Your task to perform on an android device: turn pop-ups on in chrome Image 0: 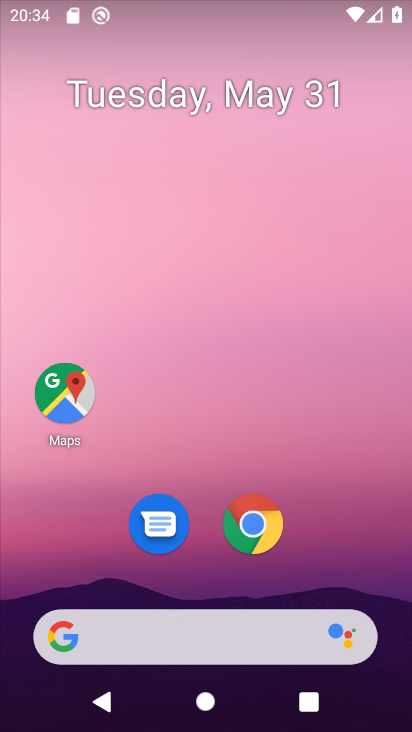
Step 0: click (263, 524)
Your task to perform on an android device: turn pop-ups on in chrome Image 1: 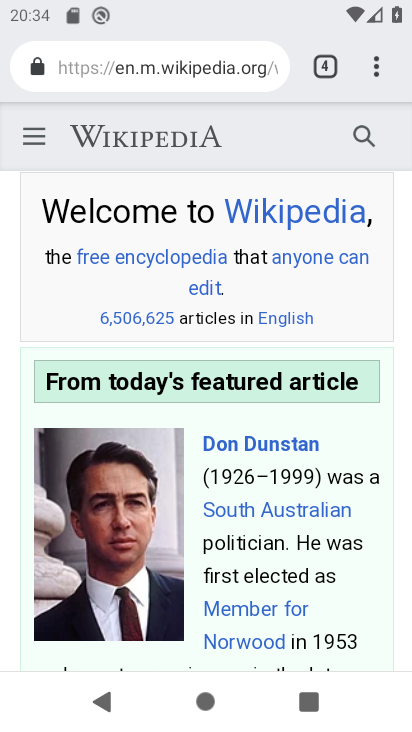
Step 1: click (377, 66)
Your task to perform on an android device: turn pop-ups on in chrome Image 2: 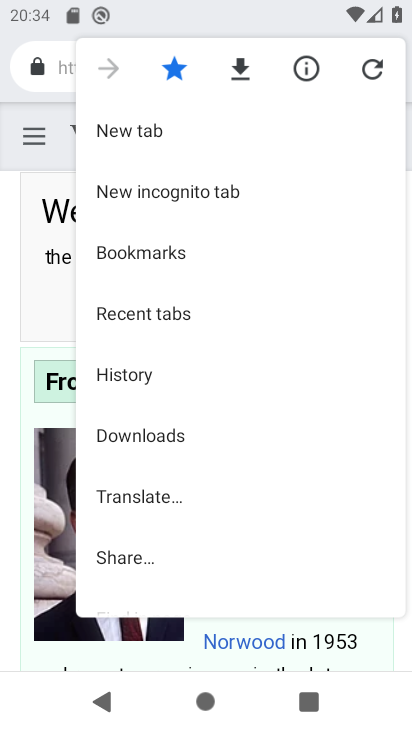
Step 2: drag from (223, 529) to (288, 207)
Your task to perform on an android device: turn pop-ups on in chrome Image 3: 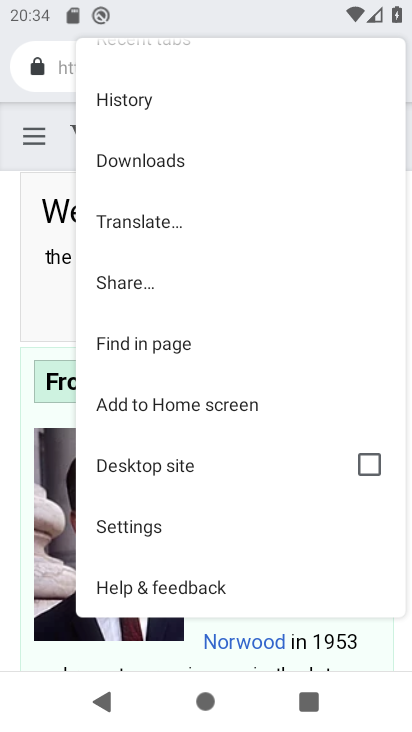
Step 3: click (178, 521)
Your task to perform on an android device: turn pop-ups on in chrome Image 4: 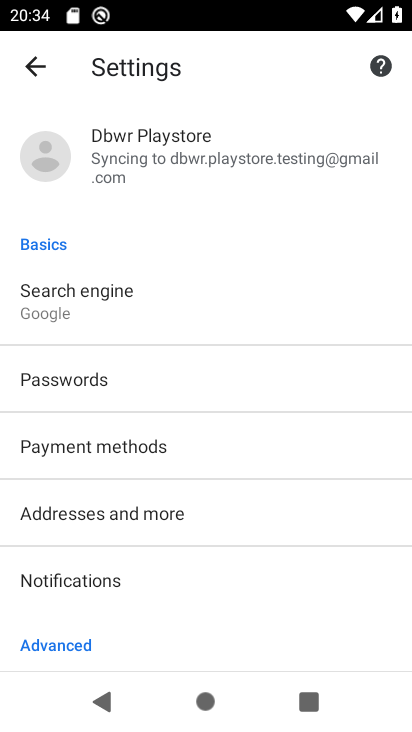
Step 4: drag from (239, 577) to (261, 278)
Your task to perform on an android device: turn pop-ups on in chrome Image 5: 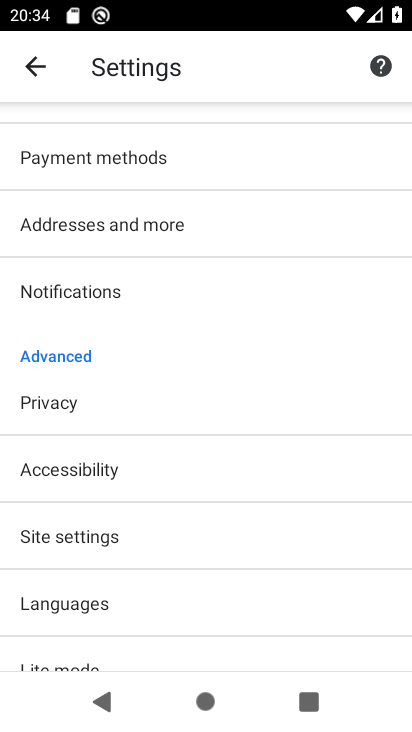
Step 5: click (182, 518)
Your task to perform on an android device: turn pop-ups on in chrome Image 6: 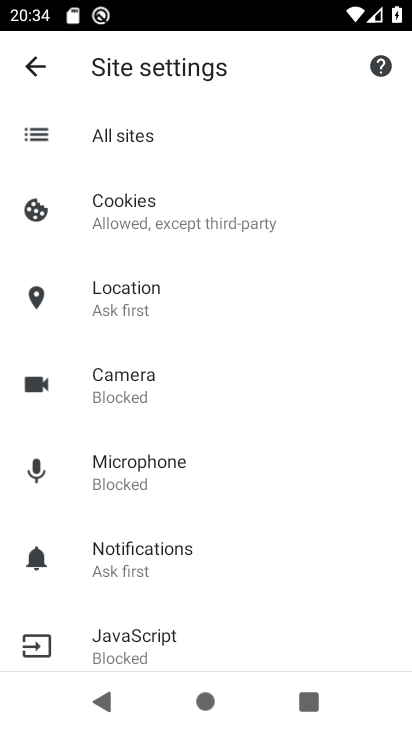
Step 6: drag from (238, 489) to (248, 263)
Your task to perform on an android device: turn pop-ups on in chrome Image 7: 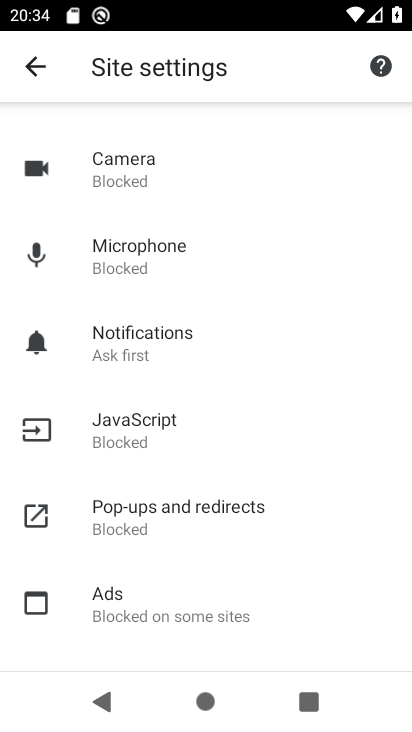
Step 7: click (188, 512)
Your task to perform on an android device: turn pop-ups on in chrome Image 8: 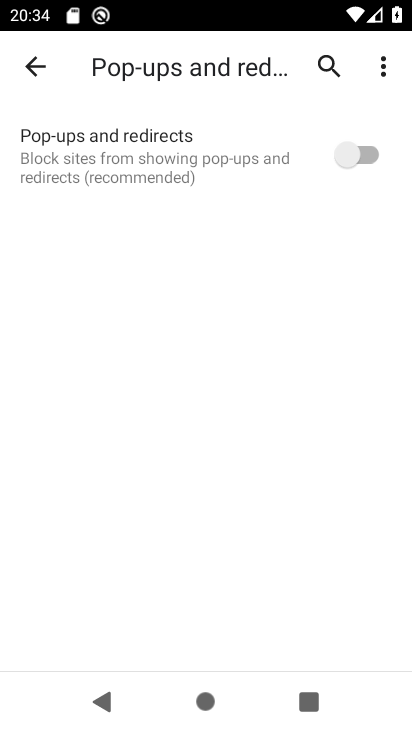
Step 8: click (349, 141)
Your task to perform on an android device: turn pop-ups on in chrome Image 9: 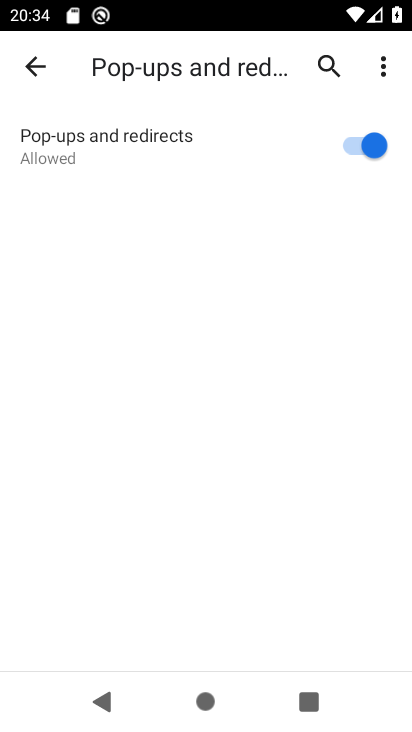
Step 9: task complete